Your task to perform on an android device: Open settings on Google Maps Image 0: 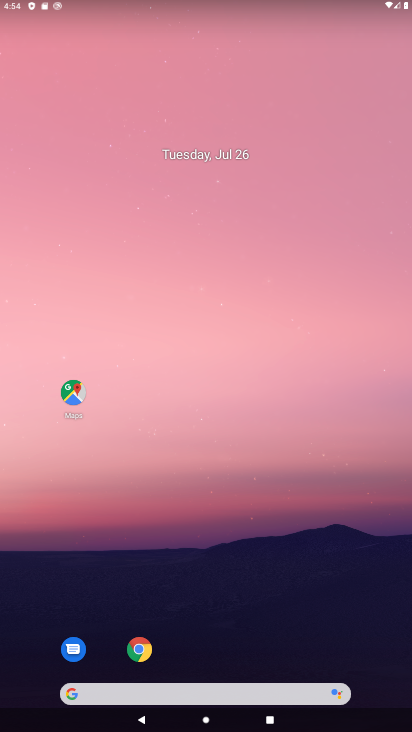
Step 0: click (70, 396)
Your task to perform on an android device: Open settings on Google Maps Image 1: 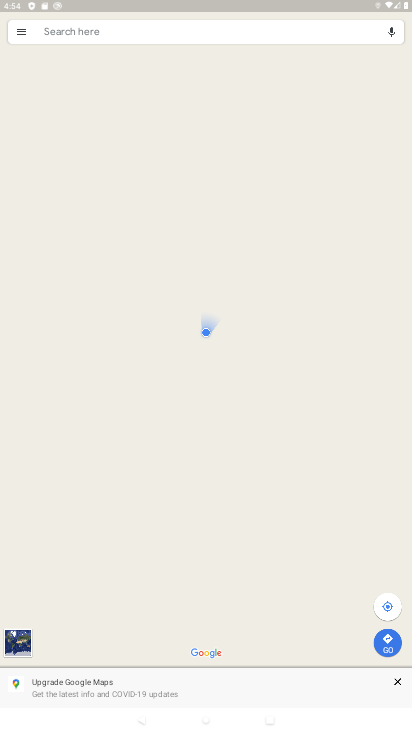
Step 1: click (17, 35)
Your task to perform on an android device: Open settings on Google Maps Image 2: 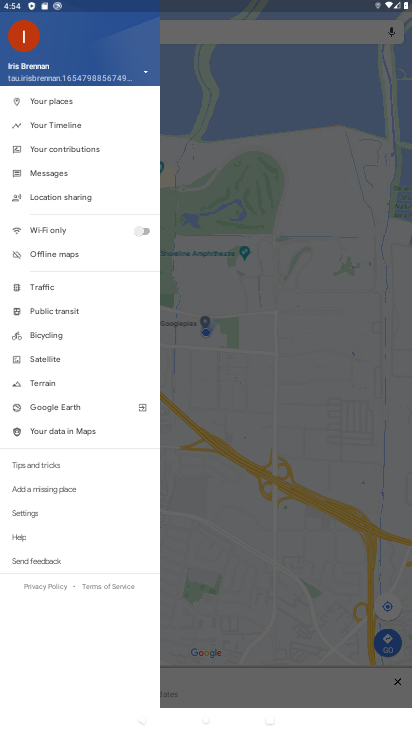
Step 2: click (56, 515)
Your task to perform on an android device: Open settings on Google Maps Image 3: 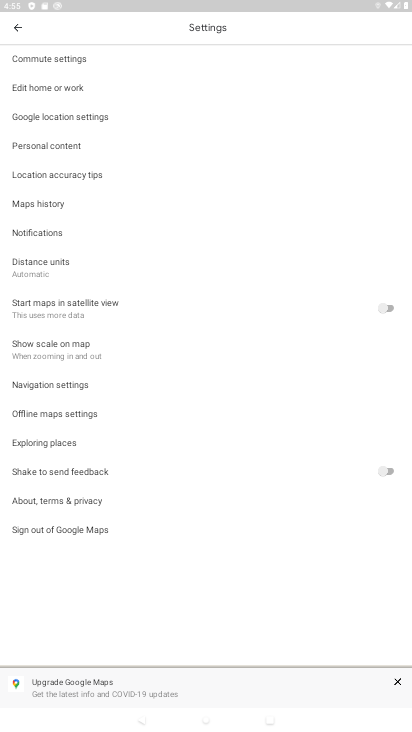
Step 3: task complete